Your task to perform on an android device: visit the assistant section in the google photos Image 0: 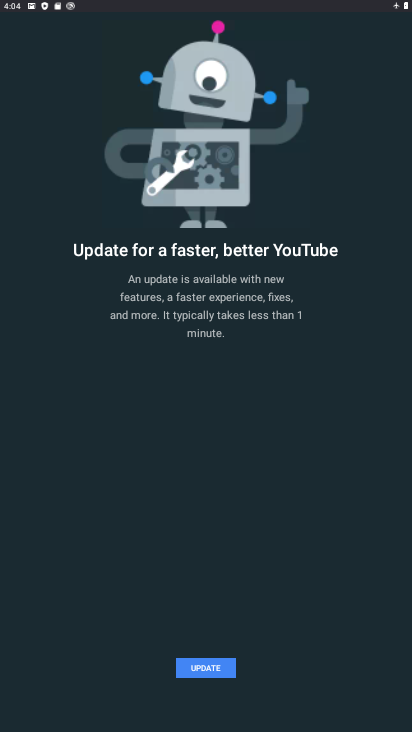
Step 0: press home button
Your task to perform on an android device: visit the assistant section in the google photos Image 1: 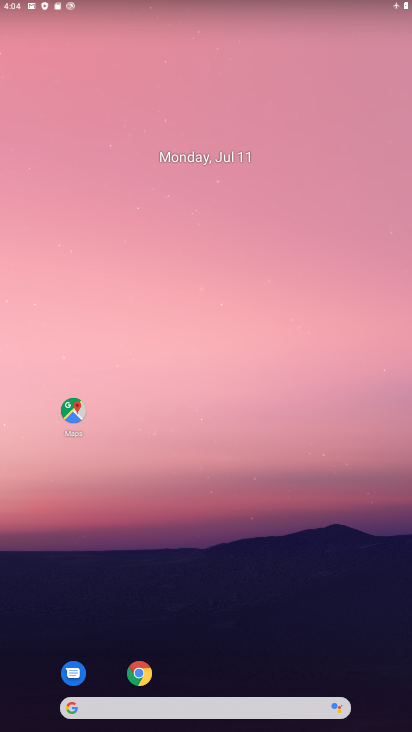
Step 1: drag from (241, 638) to (346, 154)
Your task to perform on an android device: visit the assistant section in the google photos Image 2: 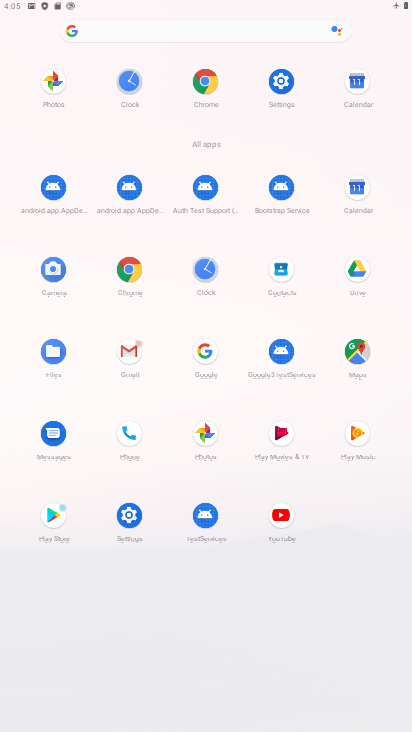
Step 2: click (209, 430)
Your task to perform on an android device: visit the assistant section in the google photos Image 3: 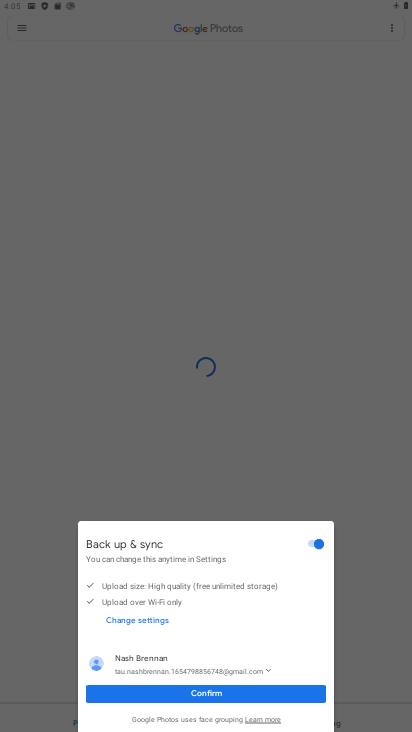
Step 3: click (202, 674)
Your task to perform on an android device: visit the assistant section in the google photos Image 4: 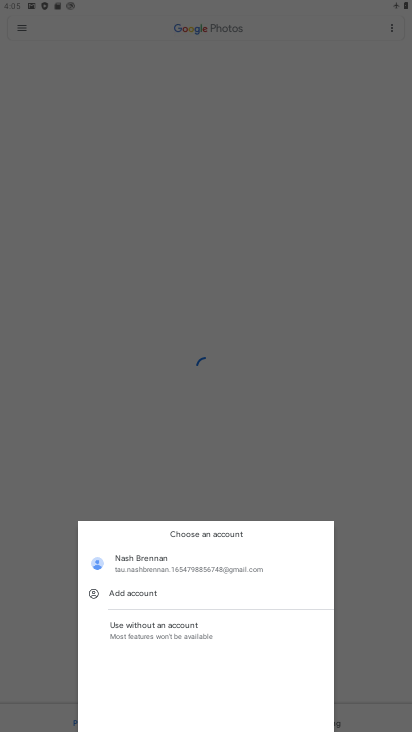
Step 4: press back button
Your task to perform on an android device: visit the assistant section in the google photos Image 5: 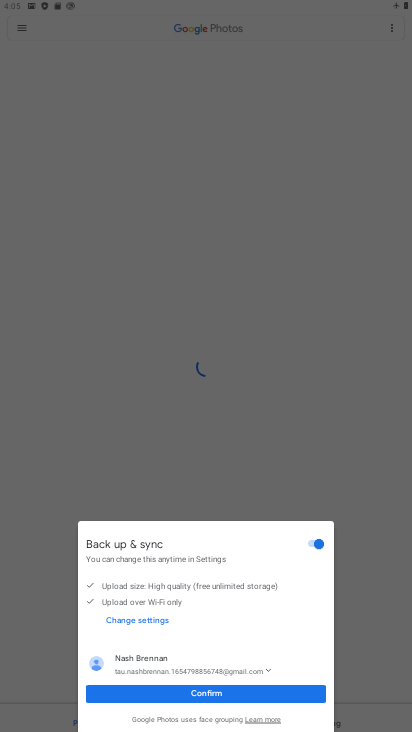
Step 5: click (201, 696)
Your task to perform on an android device: visit the assistant section in the google photos Image 6: 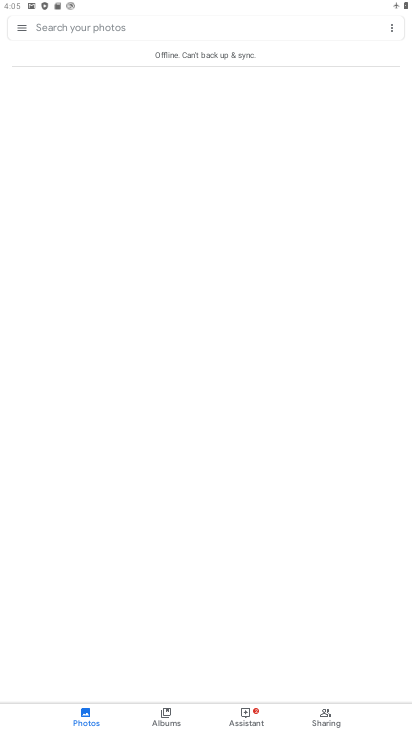
Step 6: click (260, 718)
Your task to perform on an android device: visit the assistant section in the google photos Image 7: 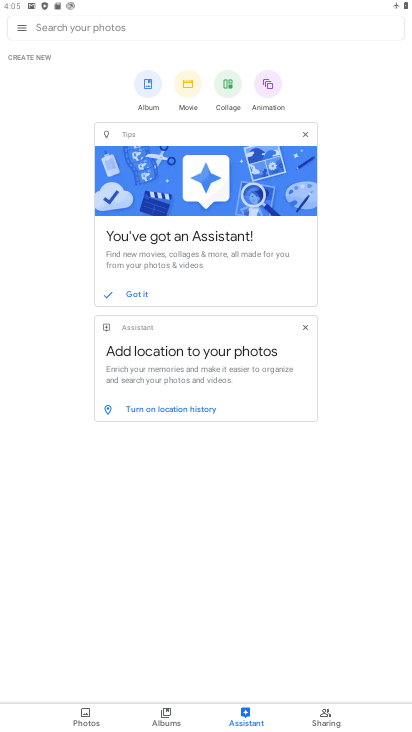
Step 7: task complete